Your task to perform on an android device: Open calendar and show me the third week of next month Image 0: 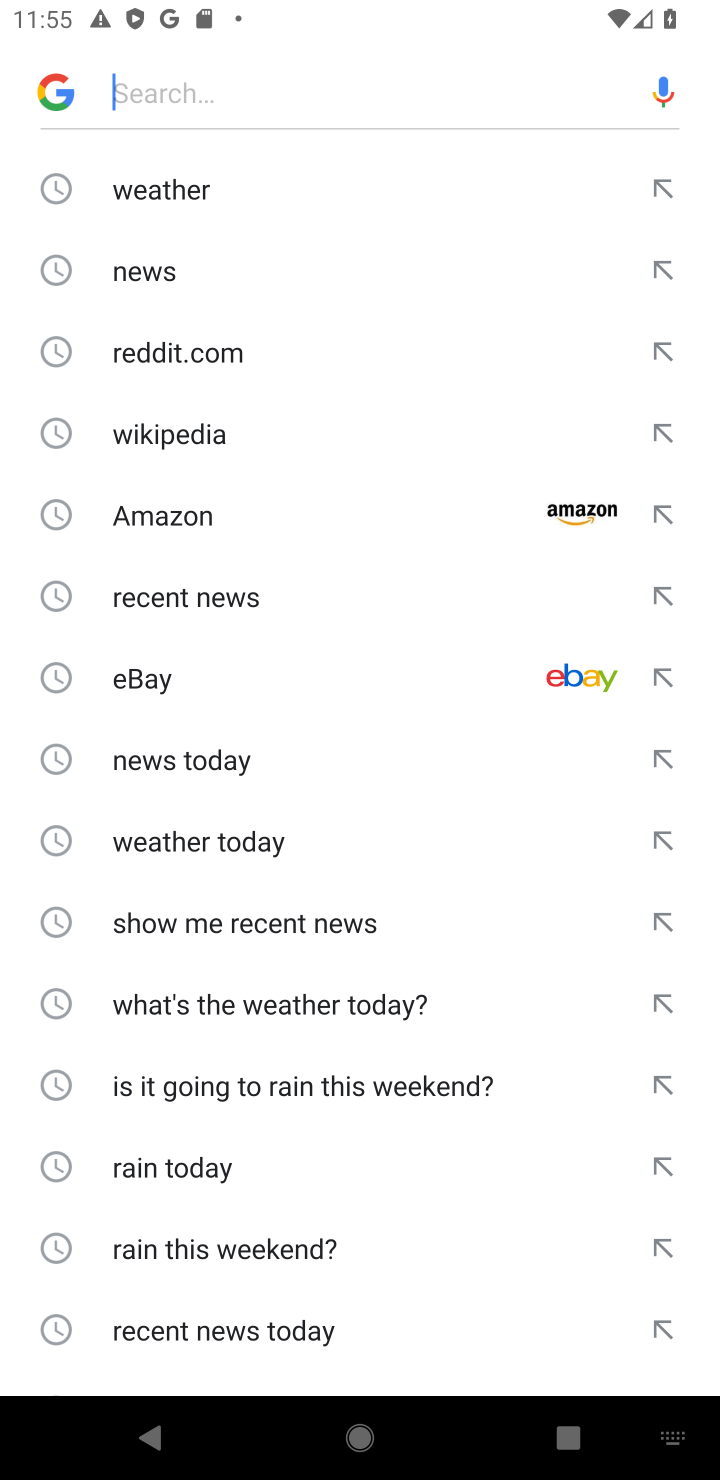
Step 0: press home button
Your task to perform on an android device: Open calendar and show me the third week of next month Image 1: 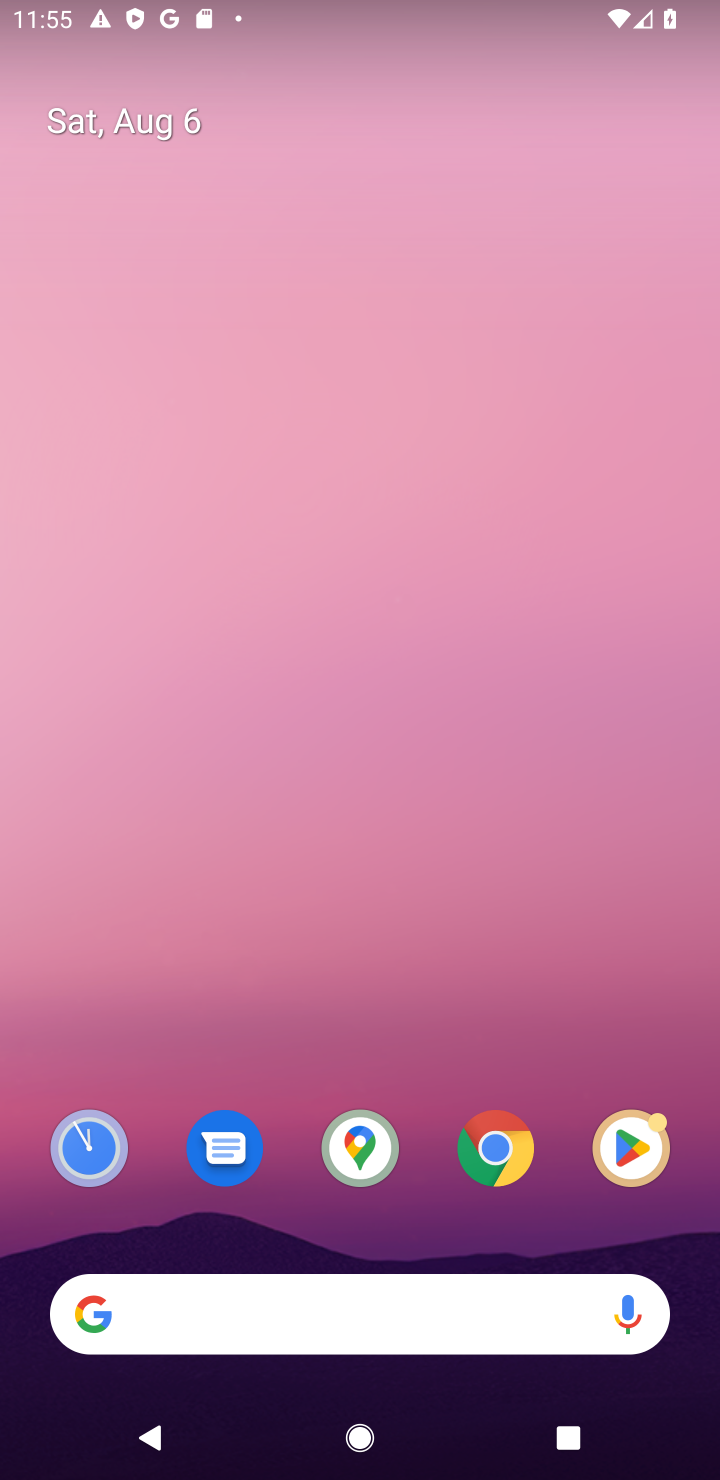
Step 1: drag from (327, 985) to (385, 176)
Your task to perform on an android device: Open calendar and show me the third week of next month Image 2: 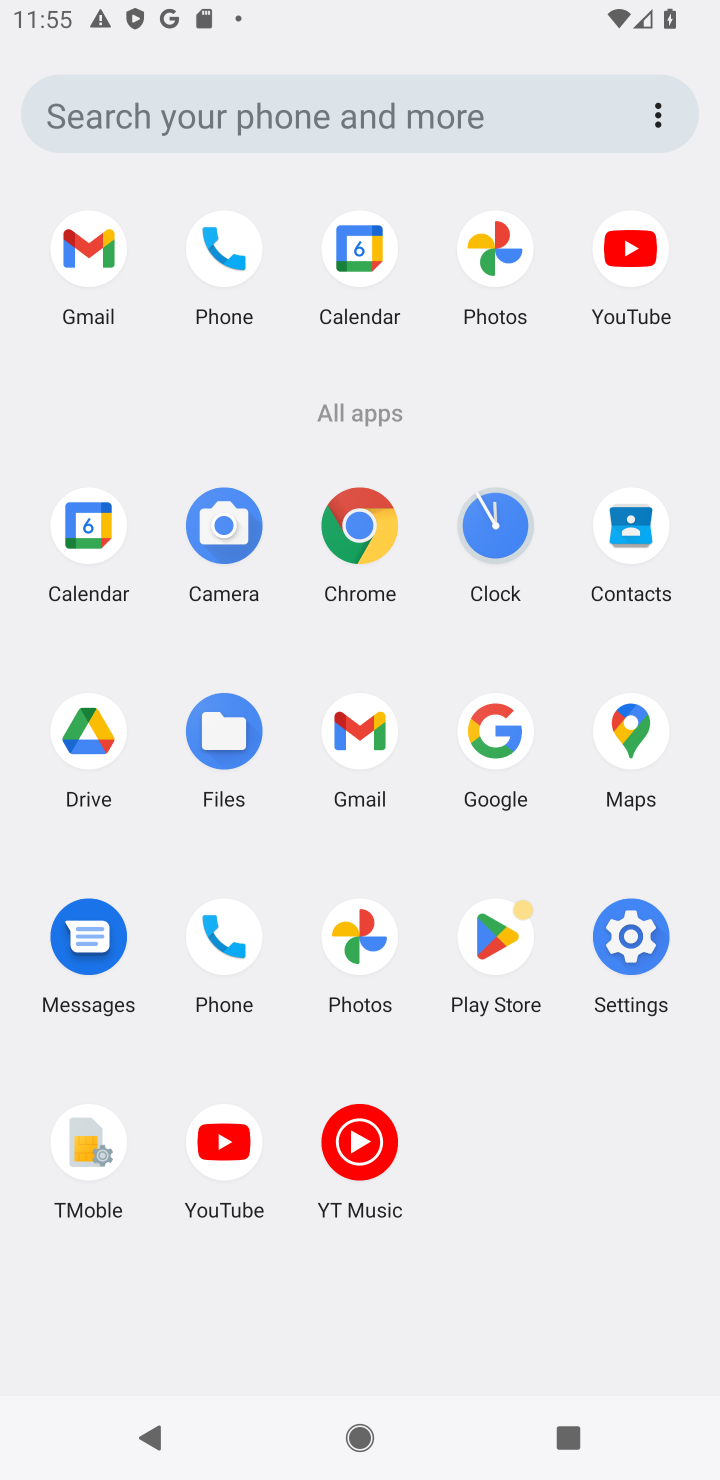
Step 2: click (87, 515)
Your task to perform on an android device: Open calendar and show me the third week of next month Image 3: 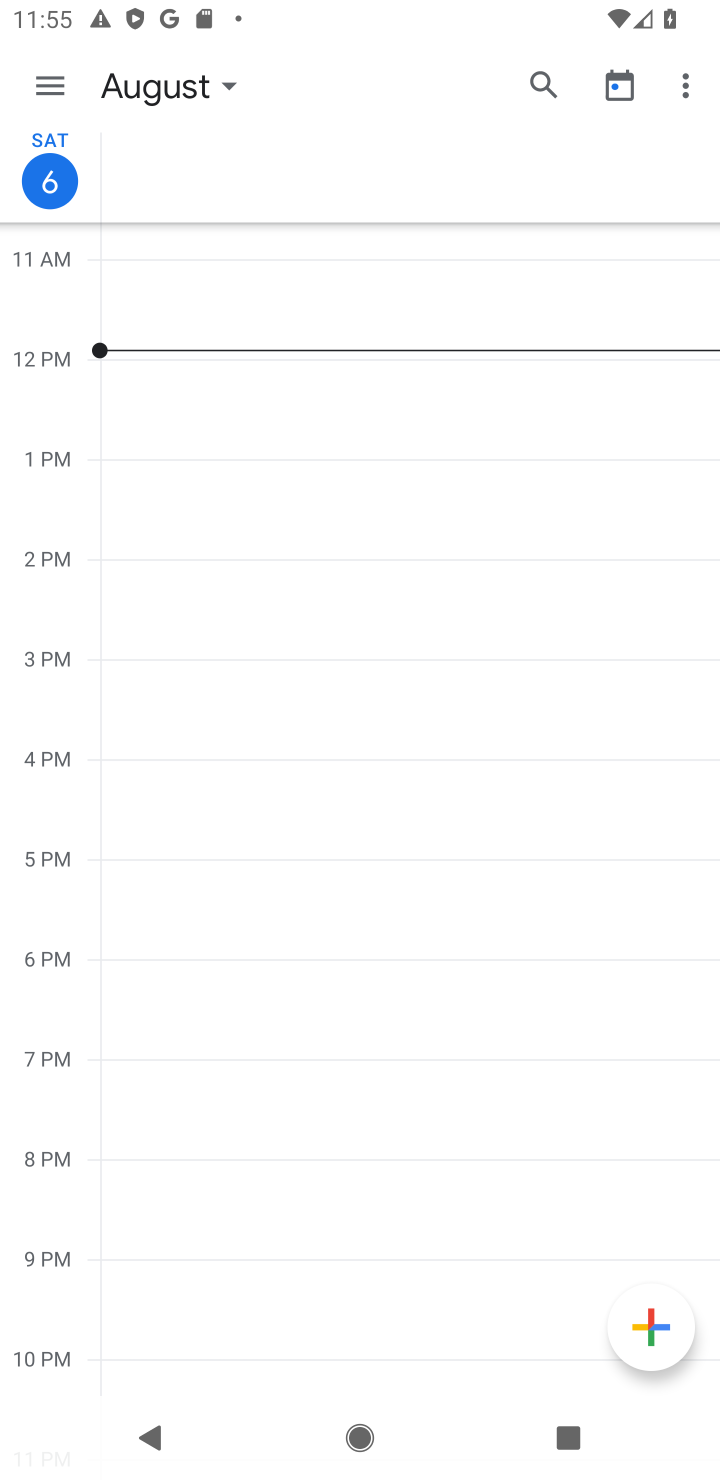
Step 3: click (38, 76)
Your task to perform on an android device: Open calendar and show me the third week of next month Image 4: 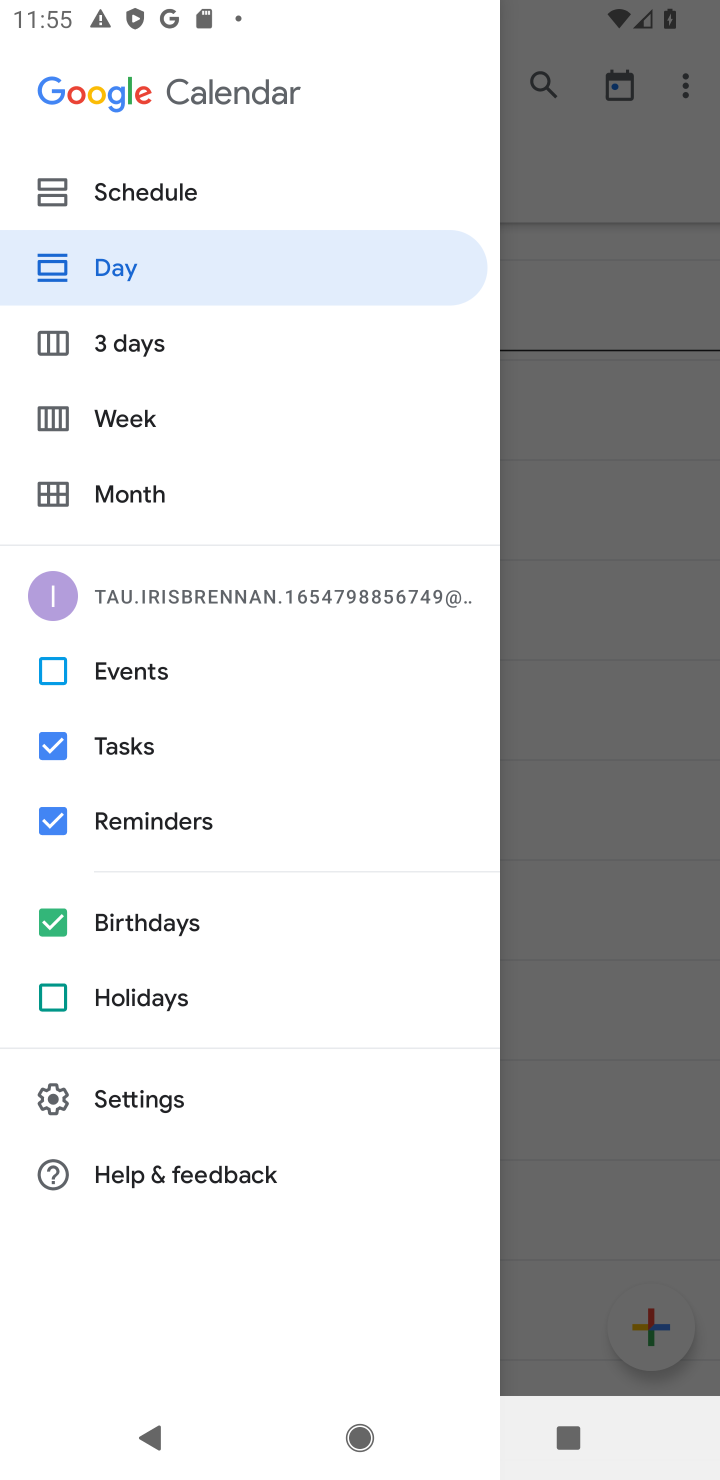
Step 4: click (120, 410)
Your task to perform on an android device: Open calendar and show me the third week of next month Image 5: 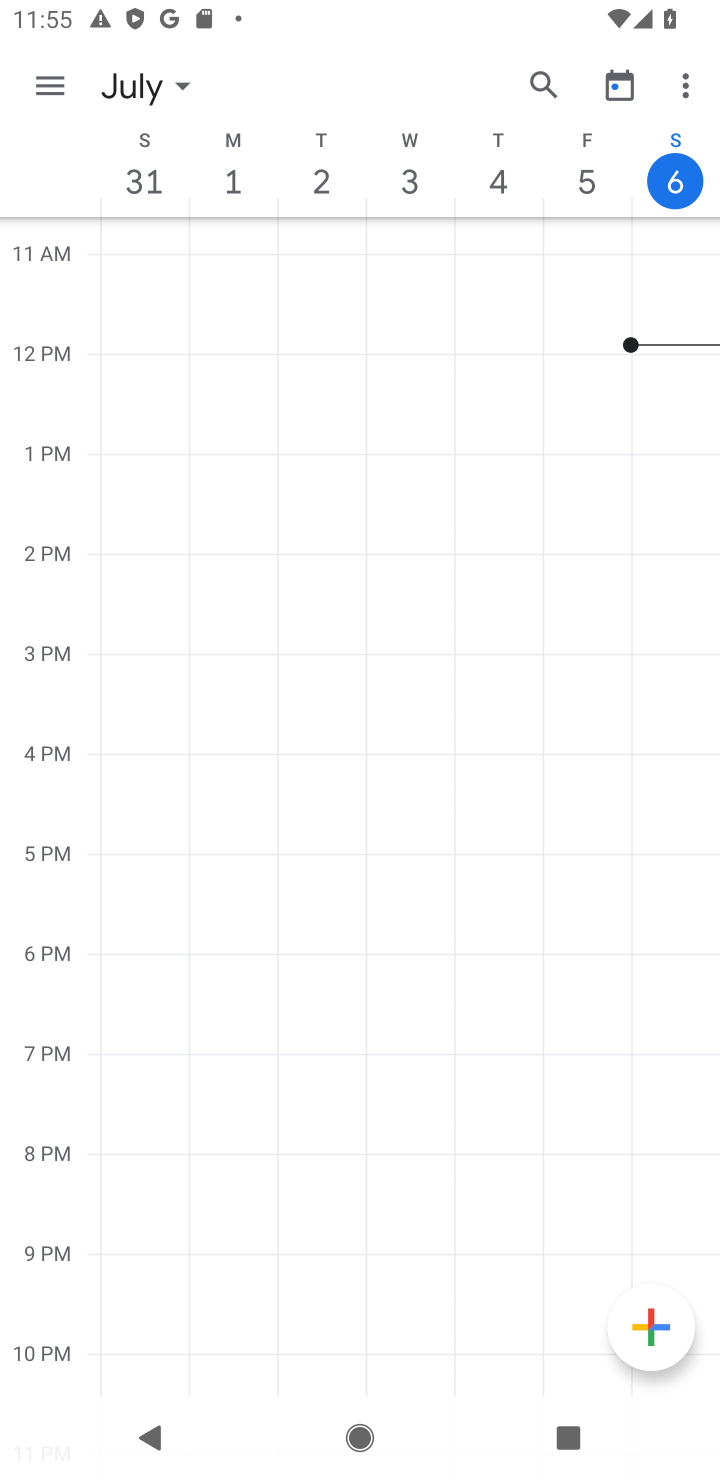
Step 5: click (188, 91)
Your task to perform on an android device: Open calendar and show me the third week of next month Image 6: 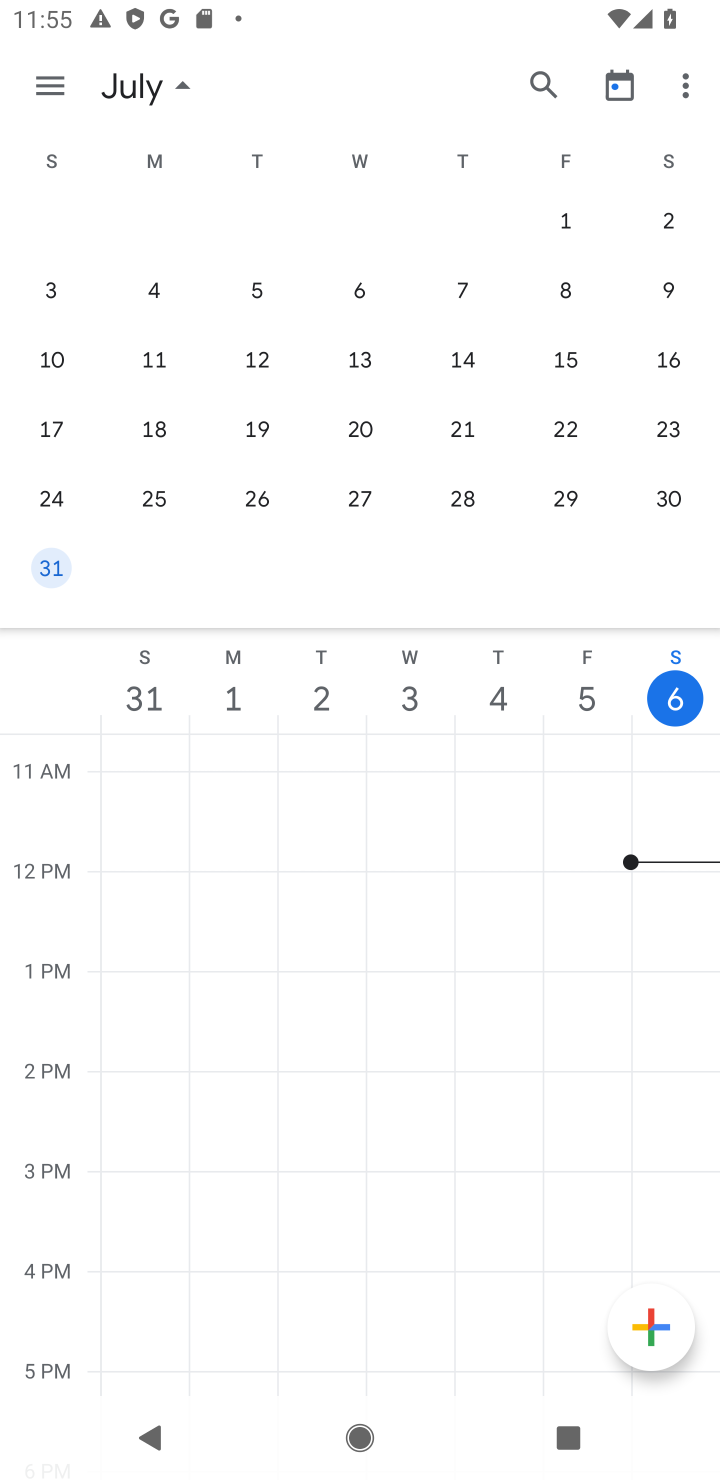
Step 6: drag from (653, 378) to (80, 443)
Your task to perform on an android device: Open calendar and show me the third week of next month Image 7: 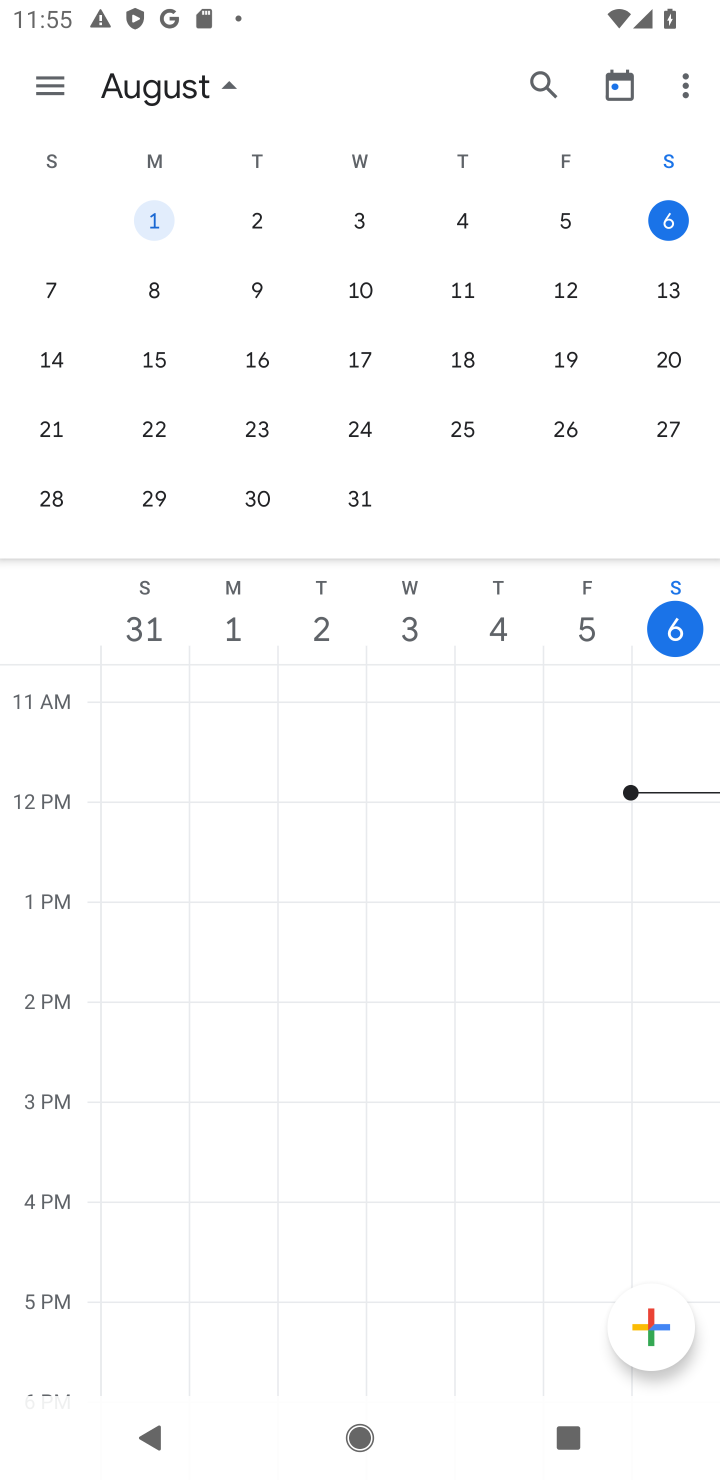
Step 7: drag from (645, 379) to (0, 304)
Your task to perform on an android device: Open calendar and show me the third week of next month Image 8: 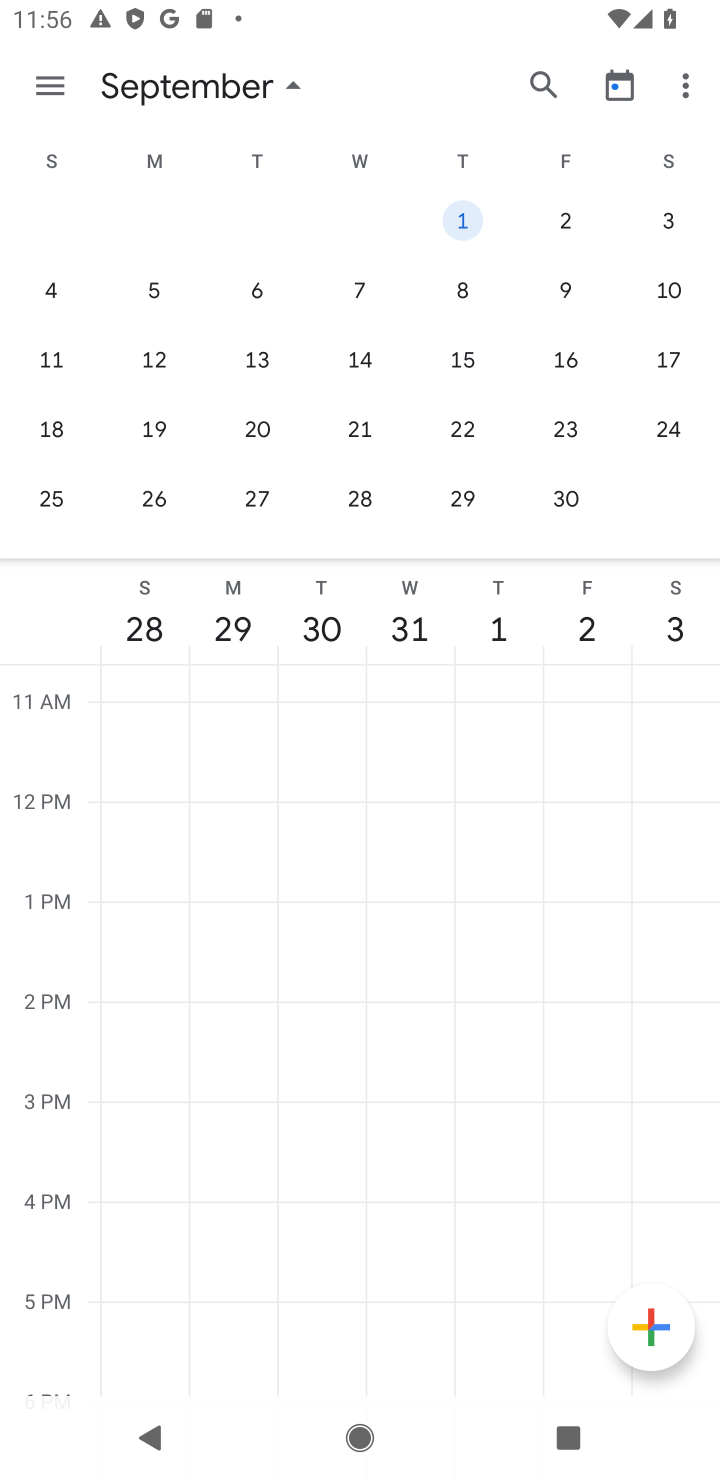
Step 8: click (466, 357)
Your task to perform on an android device: Open calendar and show me the third week of next month Image 9: 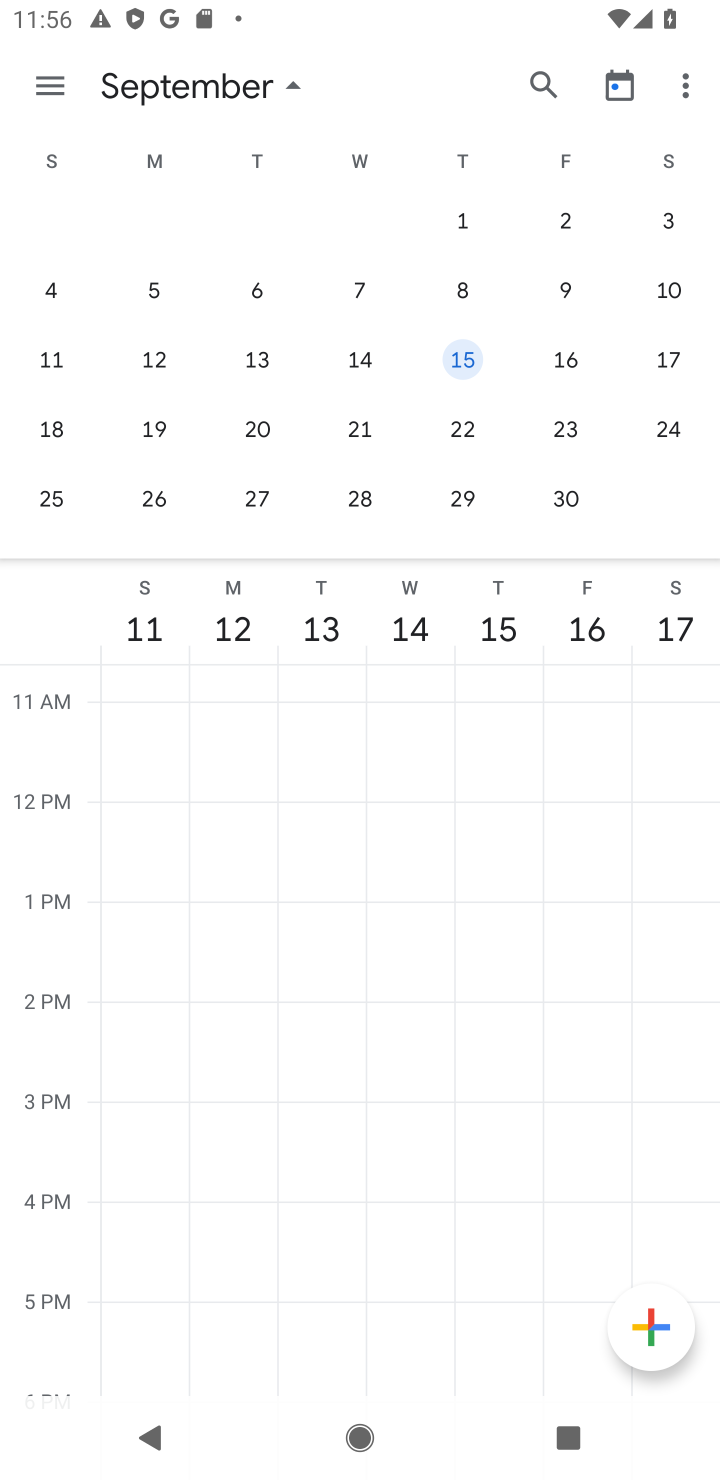
Step 9: task complete